Your task to perform on an android device: Set the phone to "Do not disturb". Image 0: 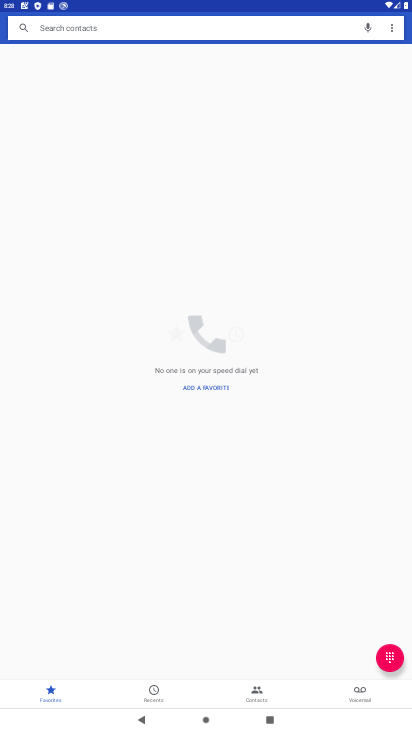
Step 0: drag from (222, 6) to (251, 473)
Your task to perform on an android device: Set the phone to "Do not disturb". Image 1: 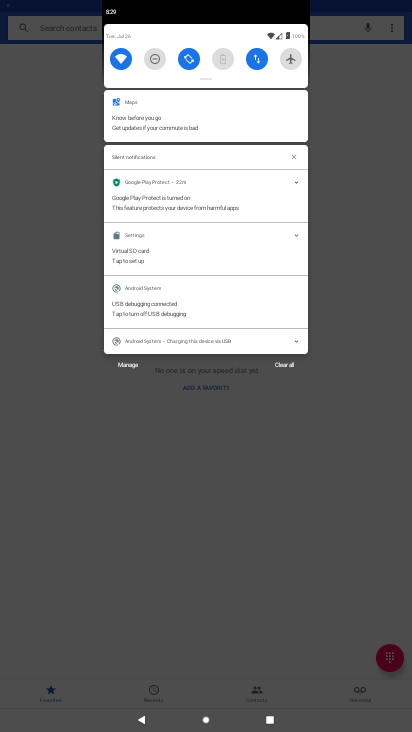
Step 1: click (155, 56)
Your task to perform on an android device: Set the phone to "Do not disturb". Image 2: 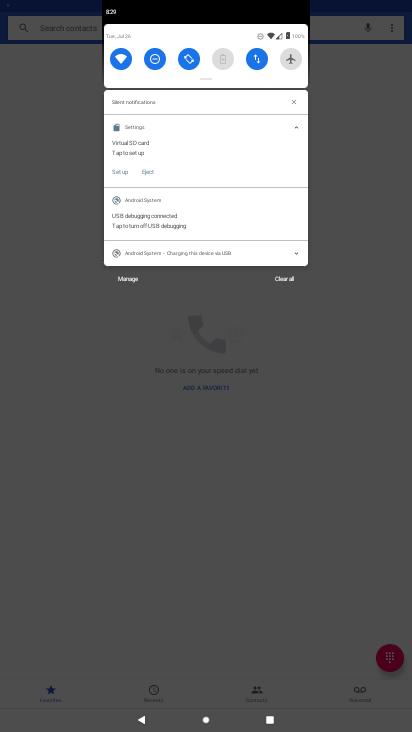
Step 2: task complete